Your task to perform on an android device: turn vacation reply on in the gmail app Image 0: 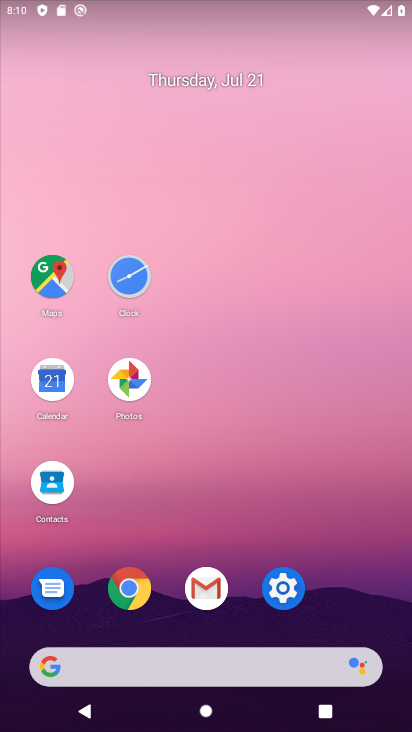
Step 0: click (203, 585)
Your task to perform on an android device: turn vacation reply on in the gmail app Image 1: 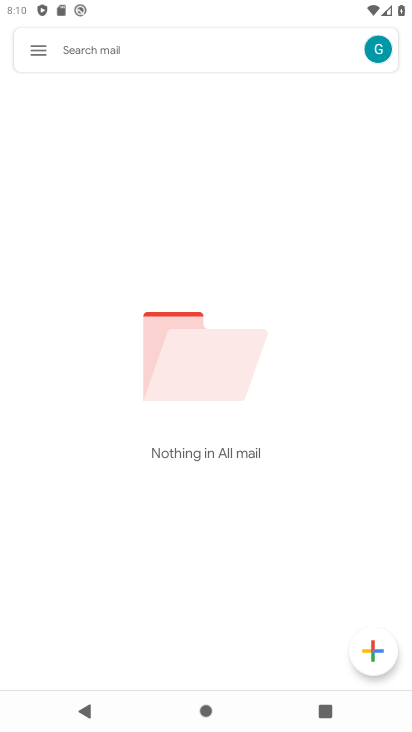
Step 1: click (33, 43)
Your task to perform on an android device: turn vacation reply on in the gmail app Image 2: 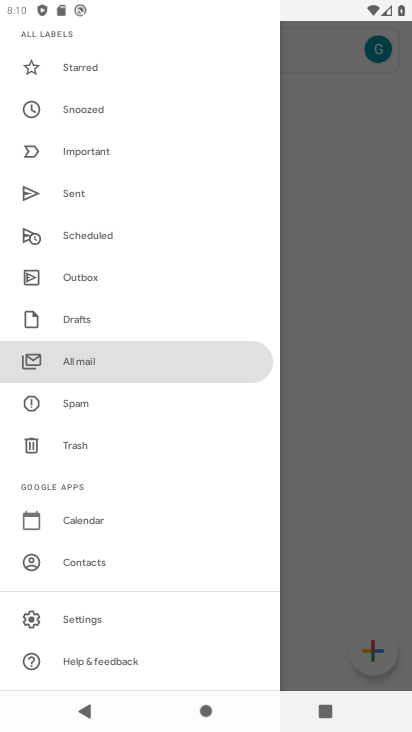
Step 2: click (74, 618)
Your task to perform on an android device: turn vacation reply on in the gmail app Image 3: 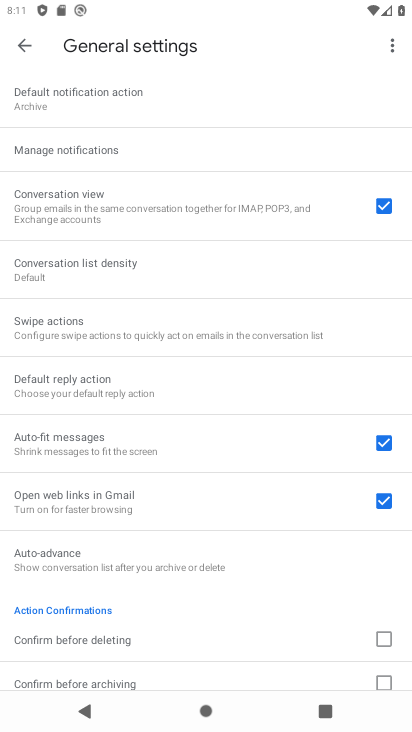
Step 3: click (23, 43)
Your task to perform on an android device: turn vacation reply on in the gmail app Image 4: 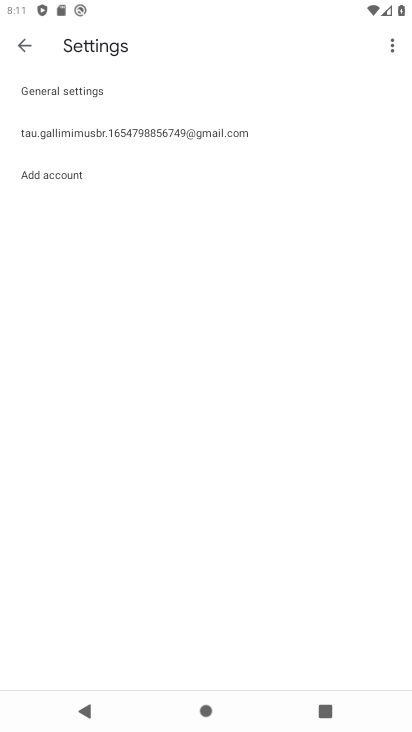
Step 4: click (86, 127)
Your task to perform on an android device: turn vacation reply on in the gmail app Image 5: 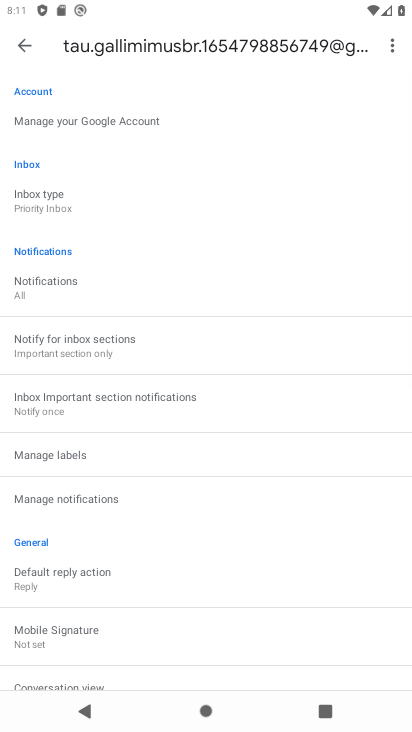
Step 5: drag from (222, 595) to (250, 230)
Your task to perform on an android device: turn vacation reply on in the gmail app Image 6: 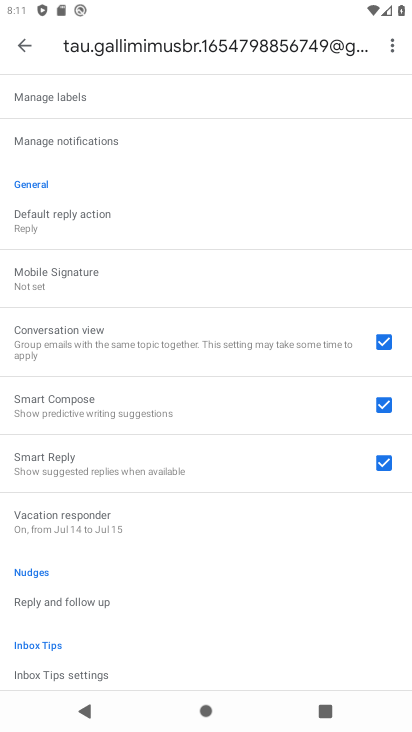
Step 6: click (70, 515)
Your task to perform on an android device: turn vacation reply on in the gmail app Image 7: 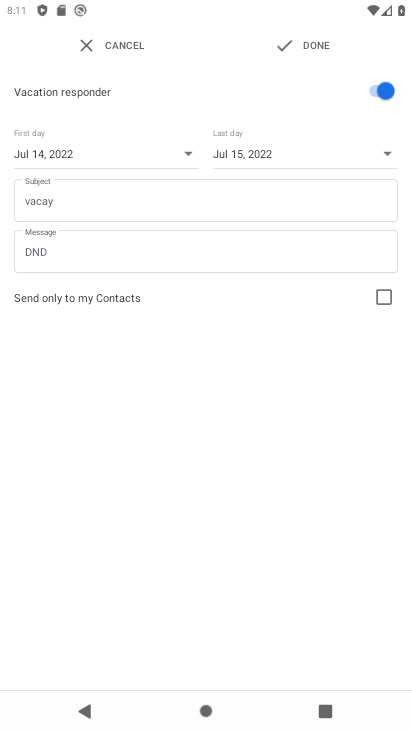
Step 7: task complete